Your task to perform on an android device: clear all cookies in the chrome app Image 0: 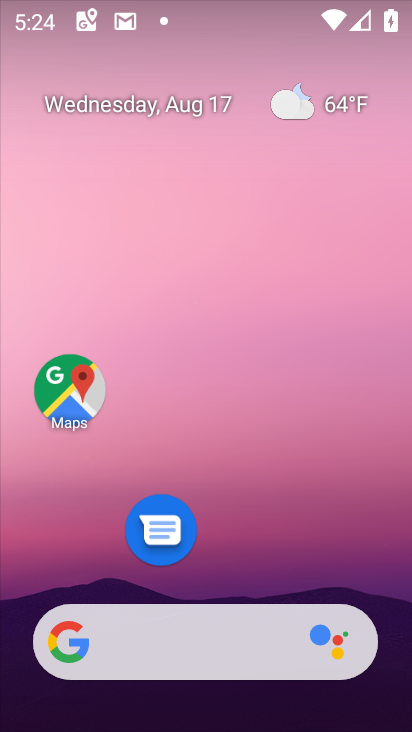
Step 0: drag from (171, 441) to (170, 175)
Your task to perform on an android device: clear all cookies in the chrome app Image 1: 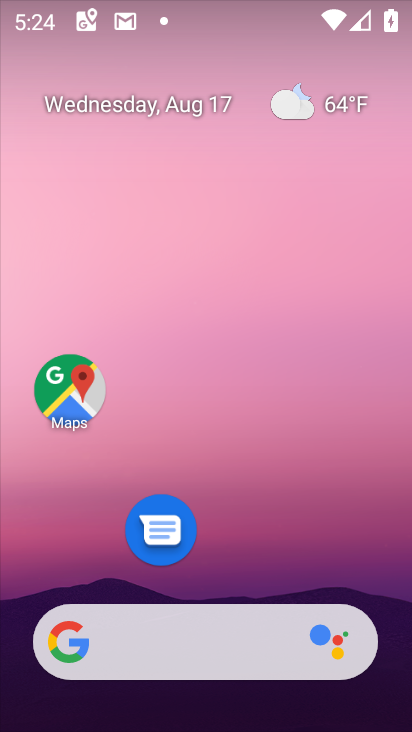
Step 1: drag from (185, 533) to (170, 186)
Your task to perform on an android device: clear all cookies in the chrome app Image 2: 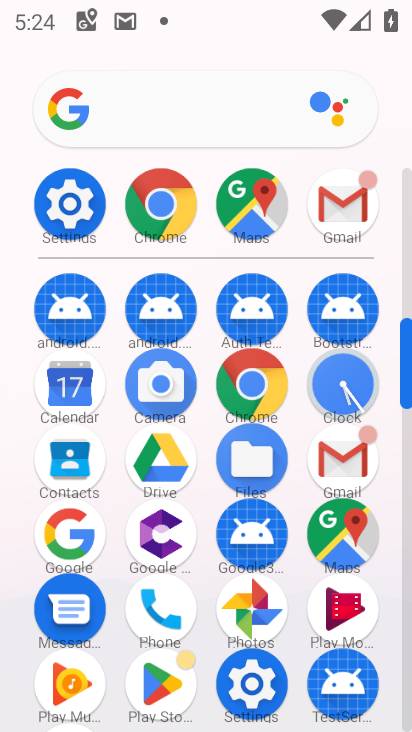
Step 2: click (159, 209)
Your task to perform on an android device: clear all cookies in the chrome app Image 3: 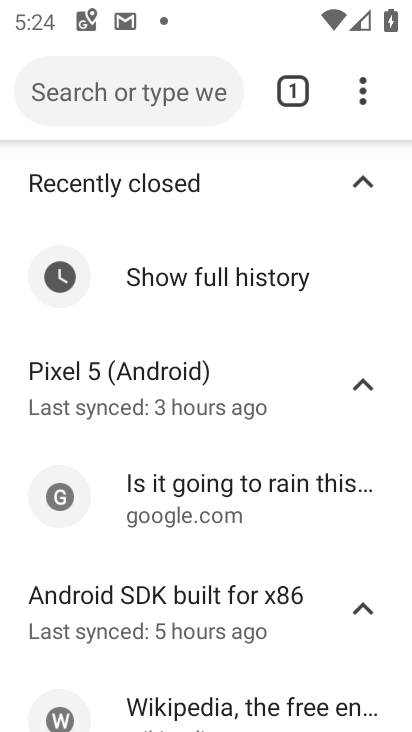
Step 3: click (360, 90)
Your task to perform on an android device: clear all cookies in the chrome app Image 4: 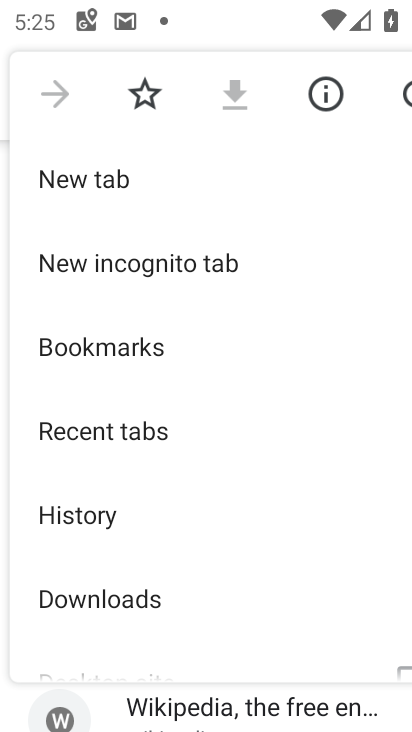
Step 4: drag from (163, 572) to (163, 196)
Your task to perform on an android device: clear all cookies in the chrome app Image 5: 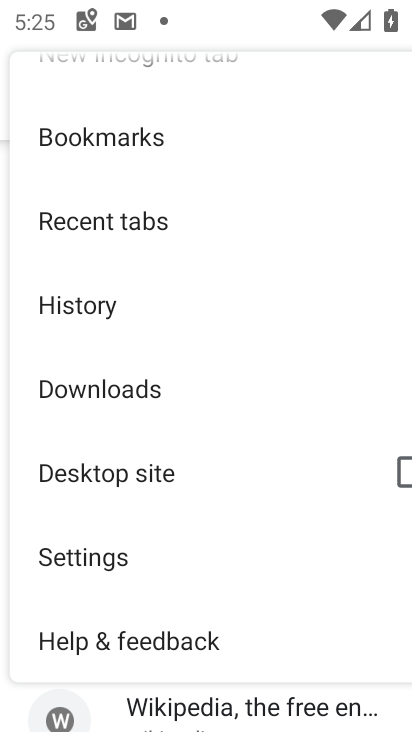
Step 5: drag from (158, 641) to (187, 339)
Your task to perform on an android device: clear all cookies in the chrome app Image 6: 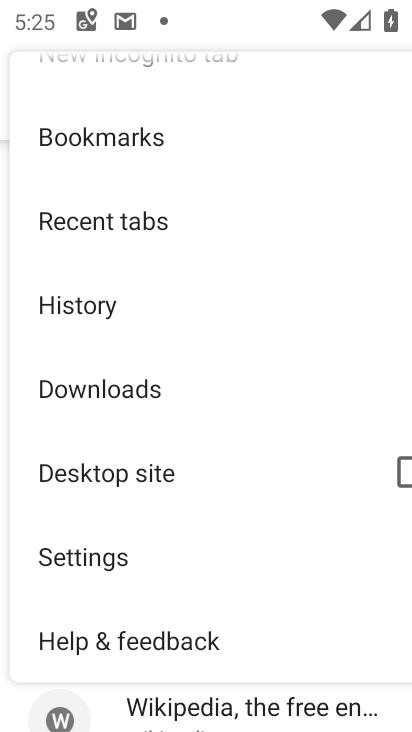
Step 6: click (117, 568)
Your task to perform on an android device: clear all cookies in the chrome app Image 7: 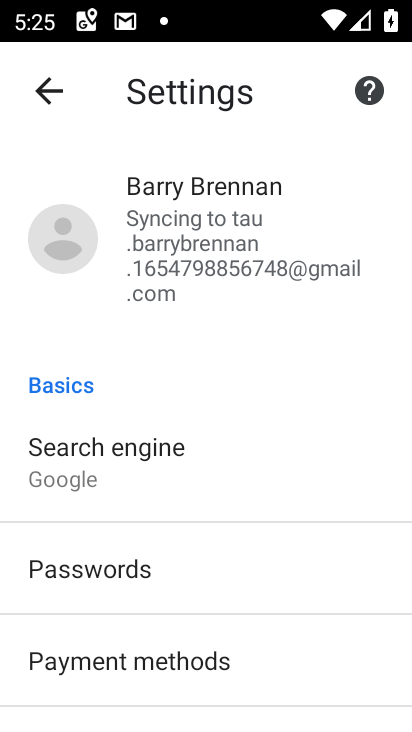
Step 7: drag from (158, 606) to (157, 180)
Your task to perform on an android device: clear all cookies in the chrome app Image 8: 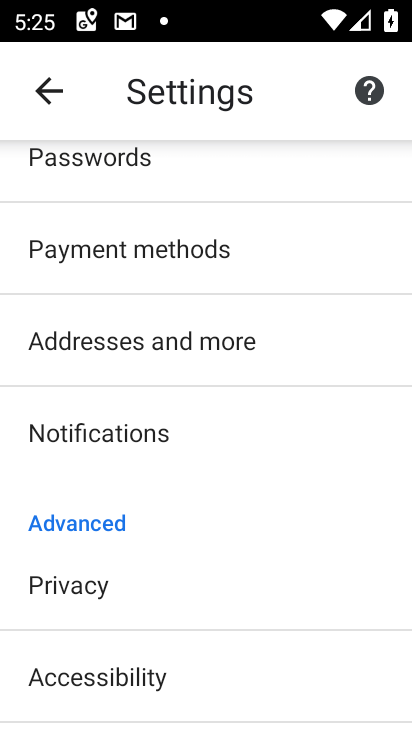
Step 8: drag from (221, 633) to (198, 199)
Your task to perform on an android device: clear all cookies in the chrome app Image 9: 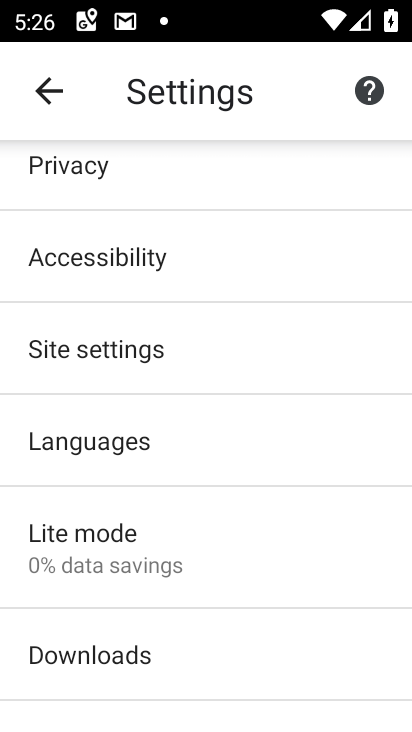
Step 9: click (119, 349)
Your task to perform on an android device: clear all cookies in the chrome app Image 10: 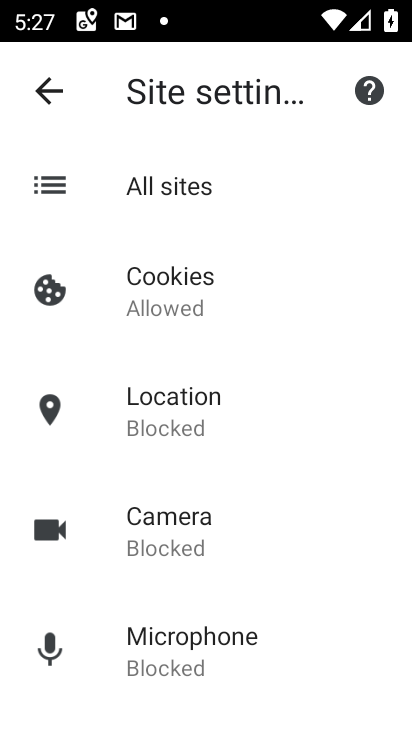
Step 10: click (165, 311)
Your task to perform on an android device: clear all cookies in the chrome app Image 11: 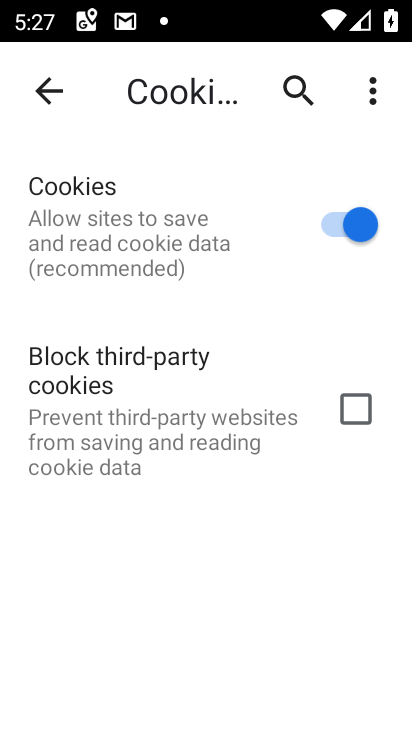
Step 11: press back button
Your task to perform on an android device: clear all cookies in the chrome app Image 12: 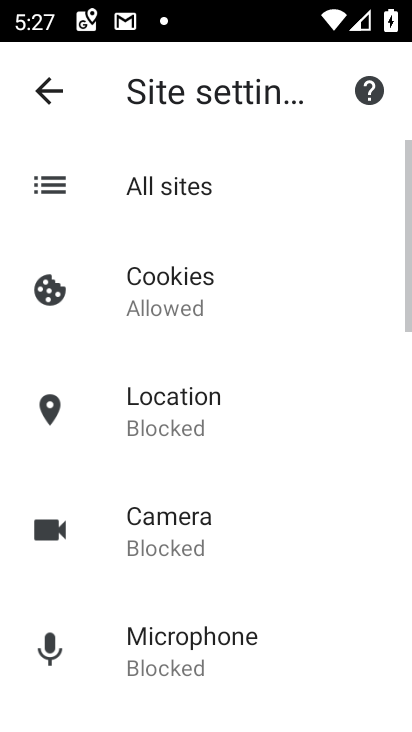
Step 12: press back button
Your task to perform on an android device: clear all cookies in the chrome app Image 13: 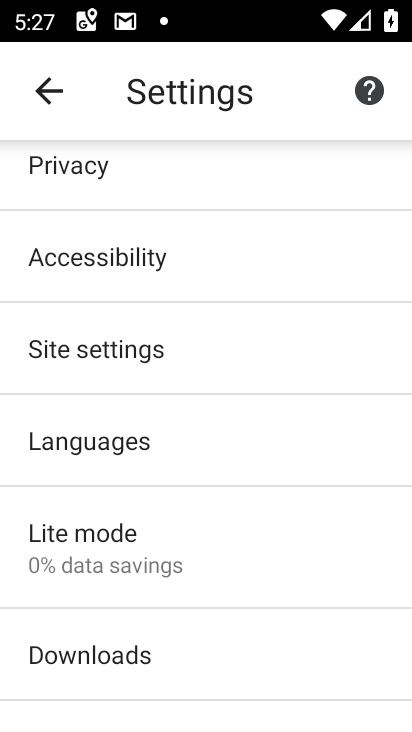
Step 13: click (72, 353)
Your task to perform on an android device: clear all cookies in the chrome app Image 14: 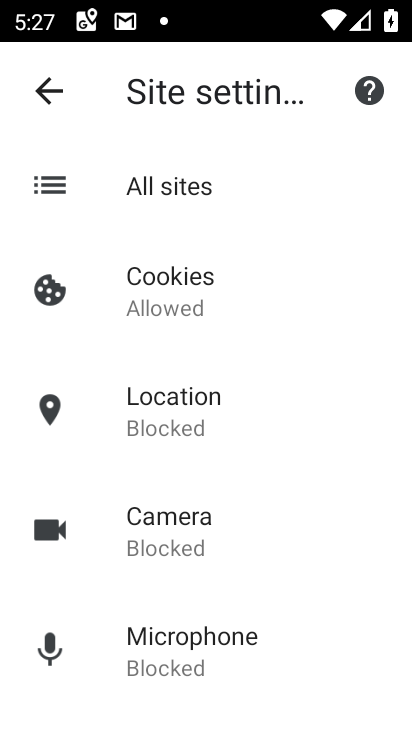
Step 14: press back button
Your task to perform on an android device: clear all cookies in the chrome app Image 15: 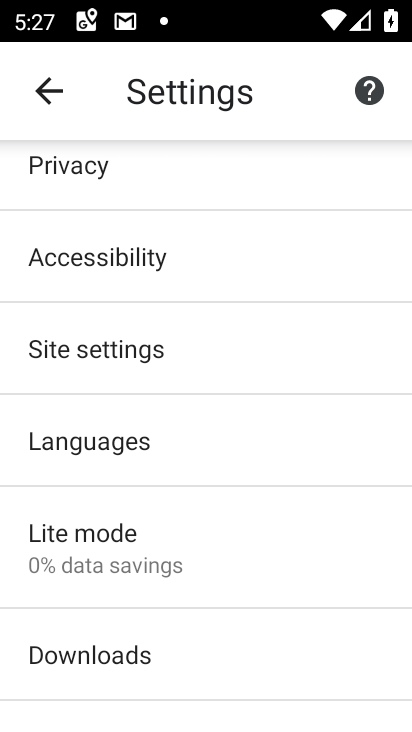
Step 15: click (47, 101)
Your task to perform on an android device: clear all cookies in the chrome app Image 16: 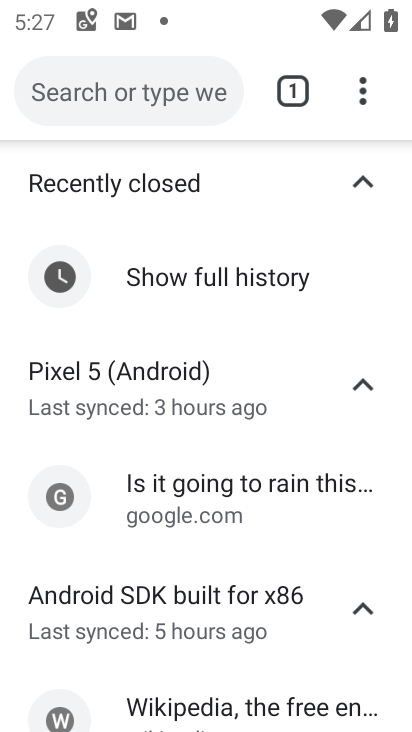
Step 16: click (363, 88)
Your task to perform on an android device: clear all cookies in the chrome app Image 17: 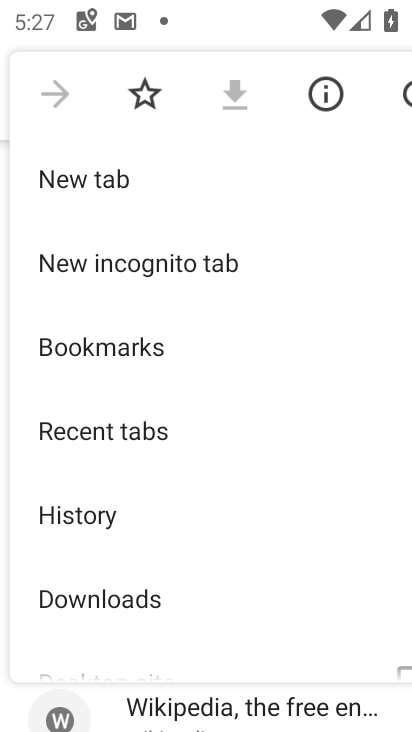
Step 17: click (75, 510)
Your task to perform on an android device: clear all cookies in the chrome app Image 18: 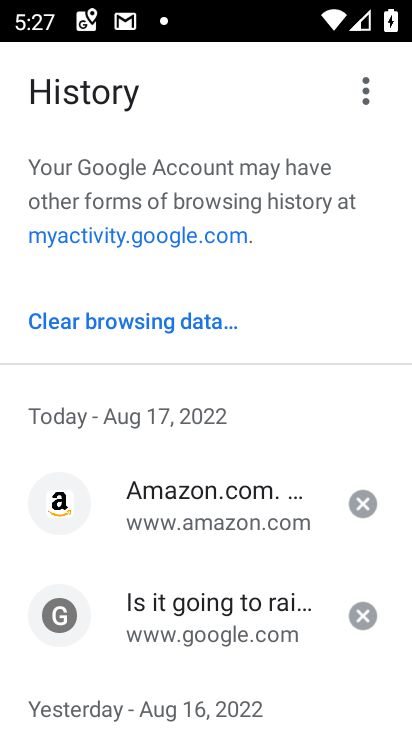
Step 18: click (143, 319)
Your task to perform on an android device: clear all cookies in the chrome app Image 19: 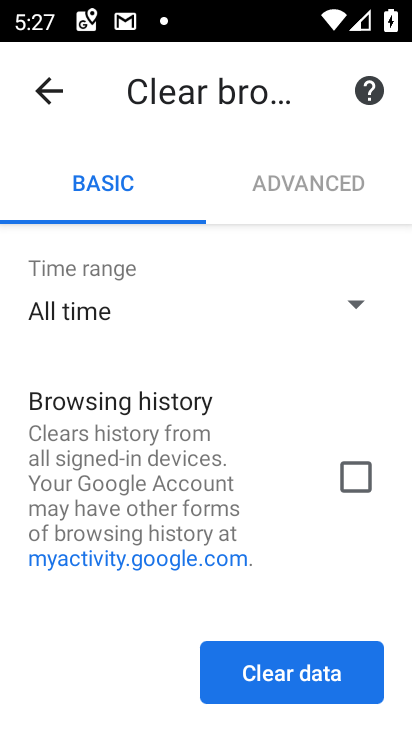
Step 19: click (351, 475)
Your task to perform on an android device: clear all cookies in the chrome app Image 20: 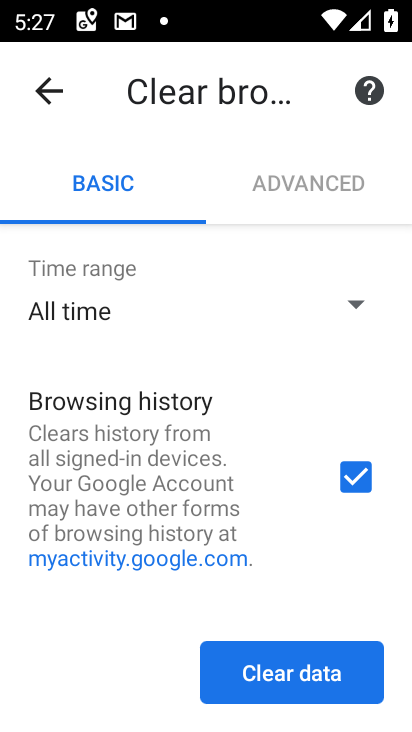
Step 20: drag from (407, 407) to (407, 466)
Your task to perform on an android device: clear all cookies in the chrome app Image 21: 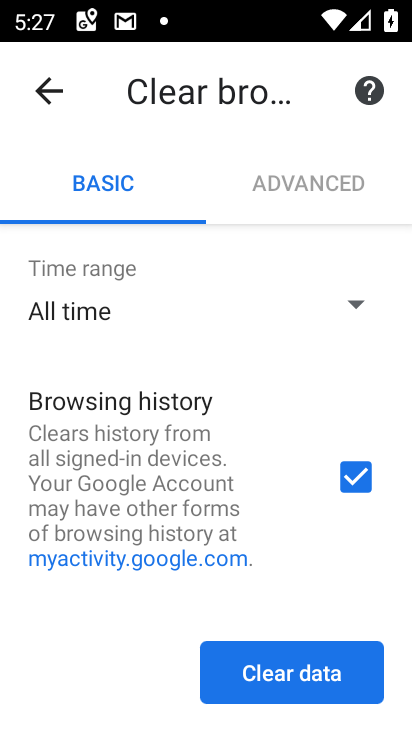
Step 21: click (407, 466)
Your task to perform on an android device: clear all cookies in the chrome app Image 22: 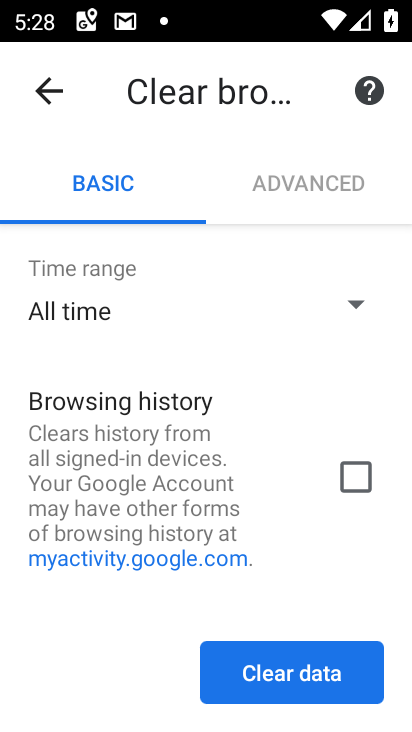
Step 22: click (356, 476)
Your task to perform on an android device: clear all cookies in the chrome app Image 23: 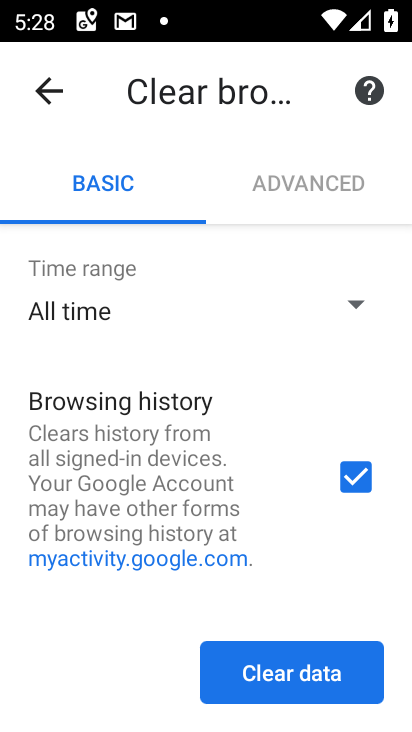
Step 23: drag from (291, 543) to (291, 398)
Your task to perform on an android device: clear all cookies in the chrome app Image 24: 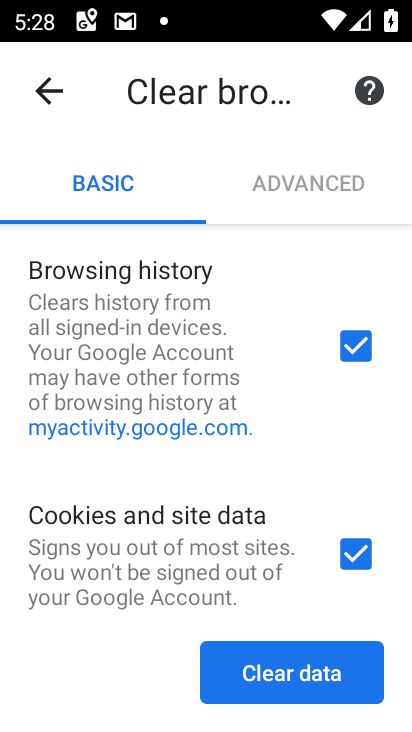
Step 24: click (349, 395)
Your task to perform on an android device: clear all cookies in the chrome app Image 25: 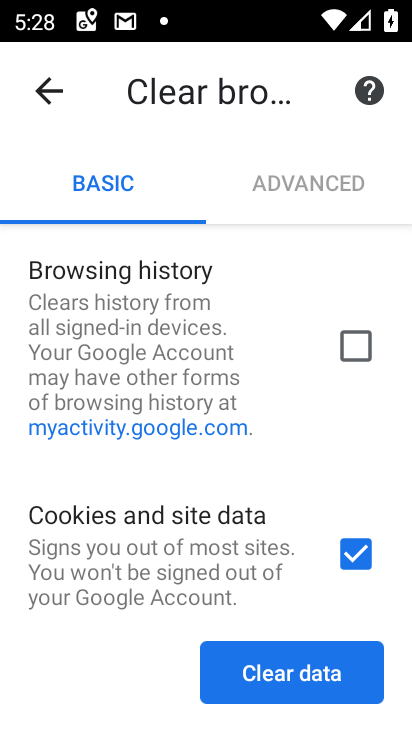
Step 25: drag from (186, 498) to (204, 266)
Your task to perform on an android device: clear all cookies in the chrome app Image 26: 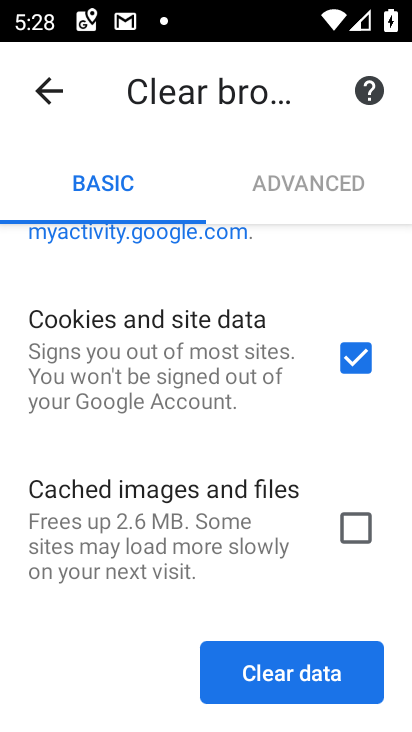
Step 26: click (273, 663)
Your task to perform on an android device: clear all cookies in the chrome app Image 27: 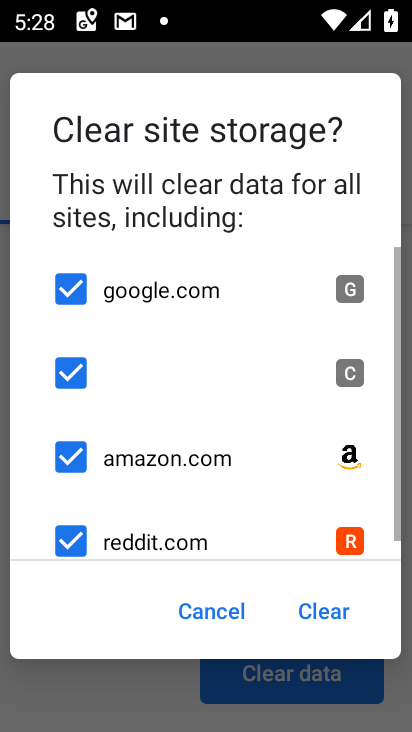
Step 27: click (327, 610)
Your task to perform on an android device: clear all cookies in the chrome app Image 28: 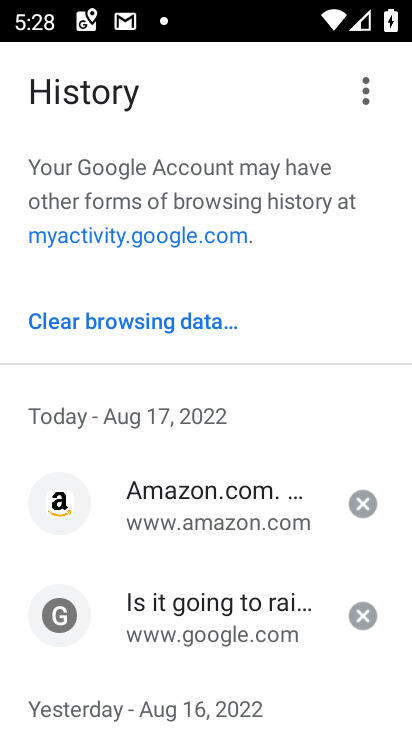
Step 28: task complete